Your task to perform on an android device: Add "logitech g903" to the cart on bestbuy, then select checkout. Image 0: 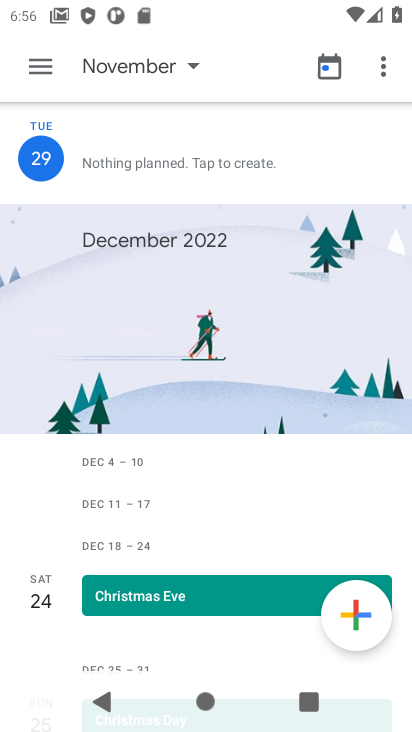
Step 0: press home button
Your task to perform on an android device: Add "logitech g903" to the cart on bestbuy, then select checkout. Image 1: 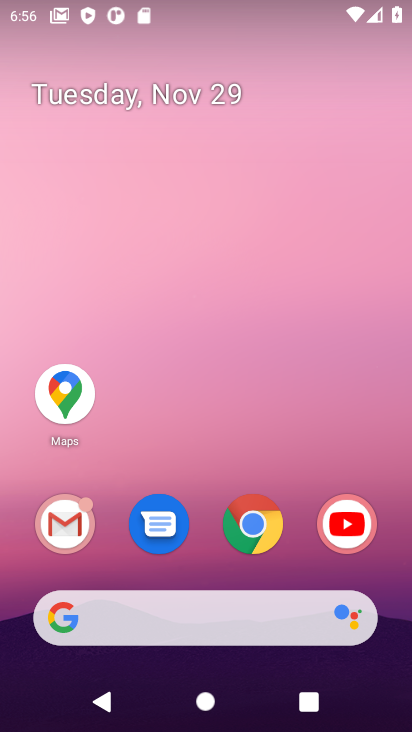
Step 1: click (254, 532)
Your task to perform on an android device: Add "logitech g903" to the cart on bestbuy, then select checkout. Image 2: 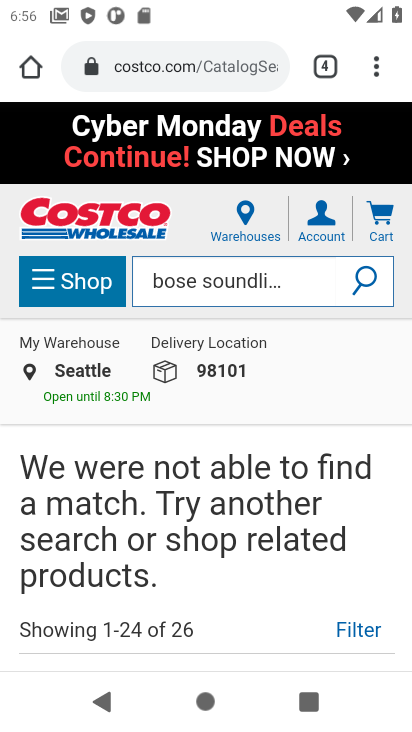
Step 2: click (184, 65)
Your task to perform on an android device: Add "logitech g903" to the cart on bestbuy, then select checkout. Image 3: 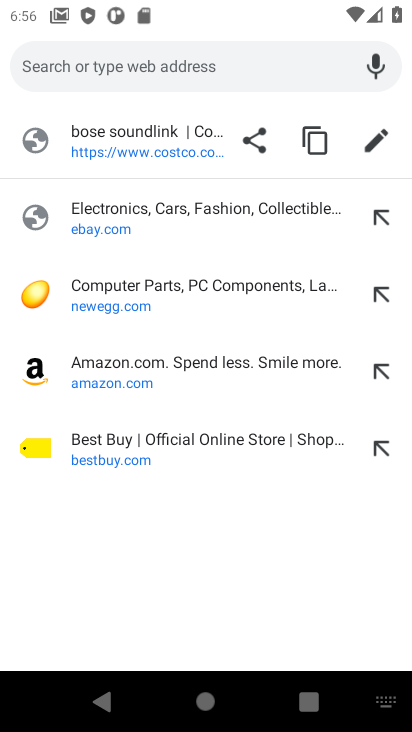
Step 3: click (97, 442)
Your task to perform on an android device: Add "logitech g903" to the cart on bestbuy, then select checkout. Image 4: 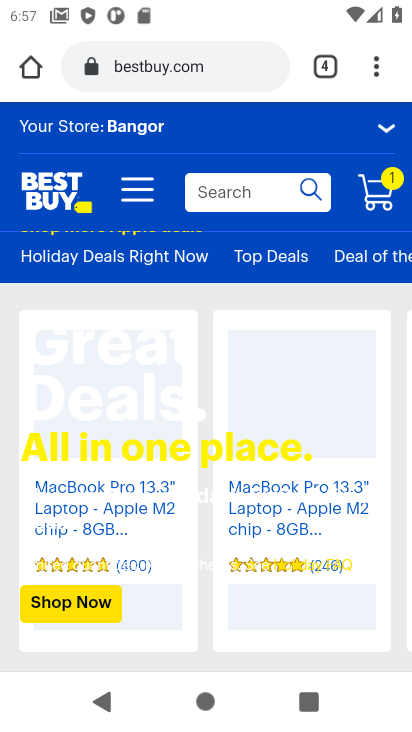
Step 4: click (226, 195)
Your task to perform on an android device: Add "logitech g903" to the cart on bestbuy, then select checkout. Image 5: 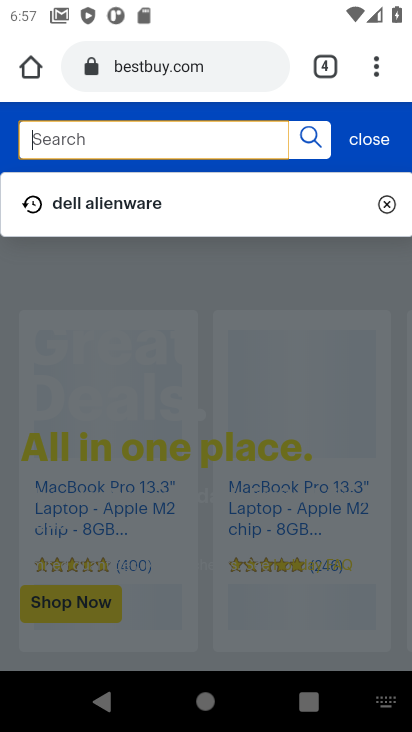
Step 5: type "logitech g903"
Your task to perform on an android device: Add "logitech g903" to the cart on bestbuy, then select checkout. Image 6: 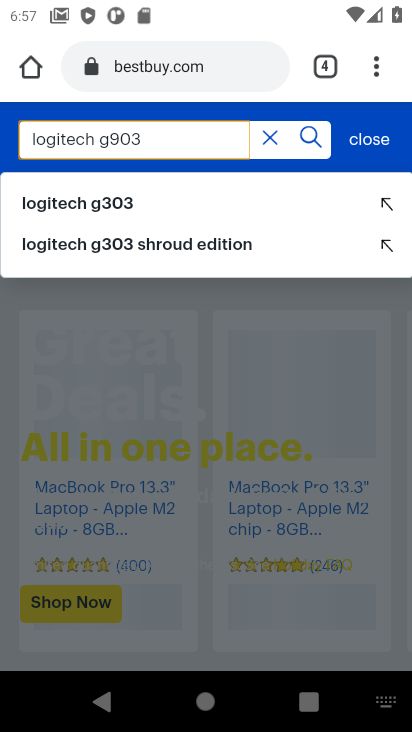
Step 6: click (295, 142)
Your task to perform on an android device: Add "logitech g903" to the cart on bestbuy, then select checkout. Image 7: 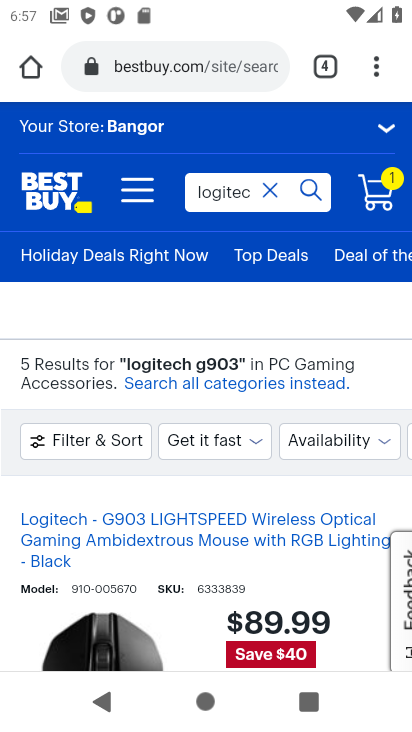
Step 7: drag from (147, 647) to (179, 307)
Your task to perform on an android device: Add "logitech g903" to the cart on bestbuy, then select checkout. Image 8: 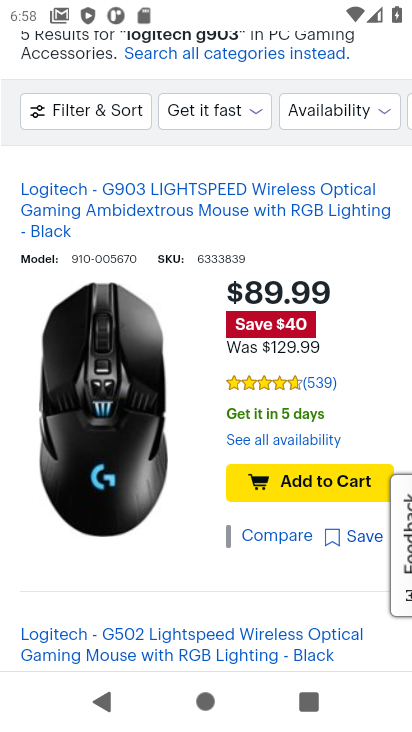
Step 8: click (278, 476)
Your task to perform on an android device: Add "logitech g903" to the cart on bestbuy, then select checkout. Image 9: 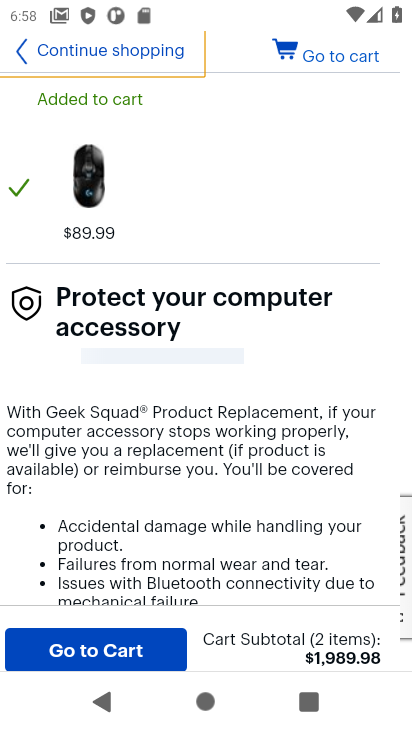
Step 9: click (354, 62)
Your task to perform on an android device: Add "logitech g903" to the cart on bestbuy, then select checkout. Image 10: 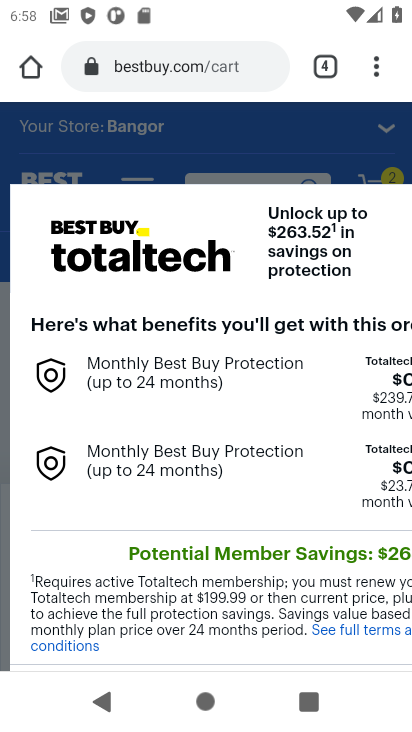
Step 10: click (296, 146)
Your task to perform on an android device: Add "logitech g903" to the cart on bestbuy, then select checkout. Image 11: 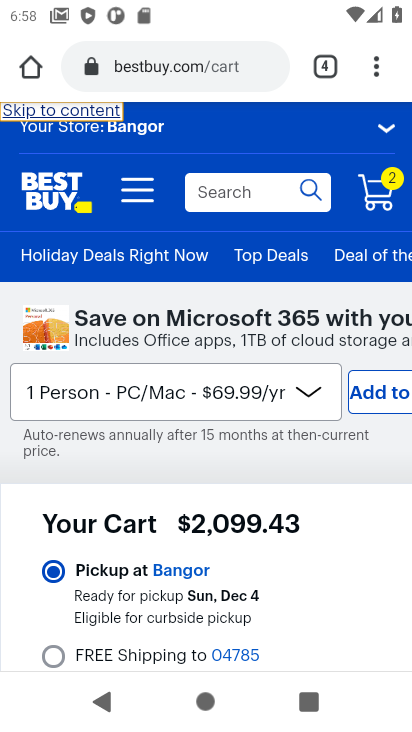
Step 11: drag from (236, 601) to (238, 383)
Your task to perform on an android device: Add "logitech g903" to the cart on bestbuy, then select checkout. Image 12: 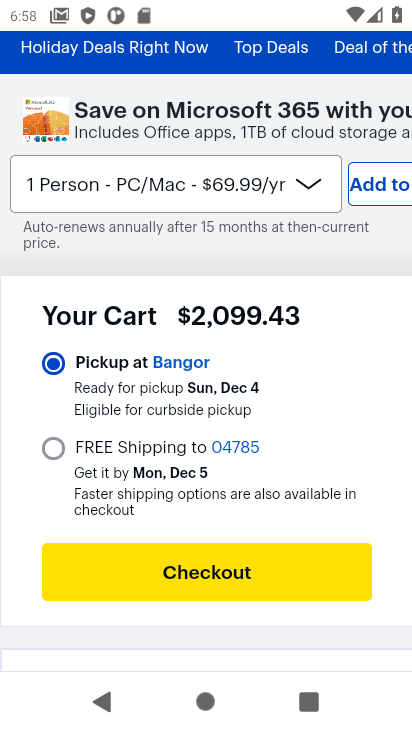
Step 12: click (198, 585)
Your task to perform on an android device: Add "logitech g903" to the cart on bestbuy, then select checkout. Image 13: 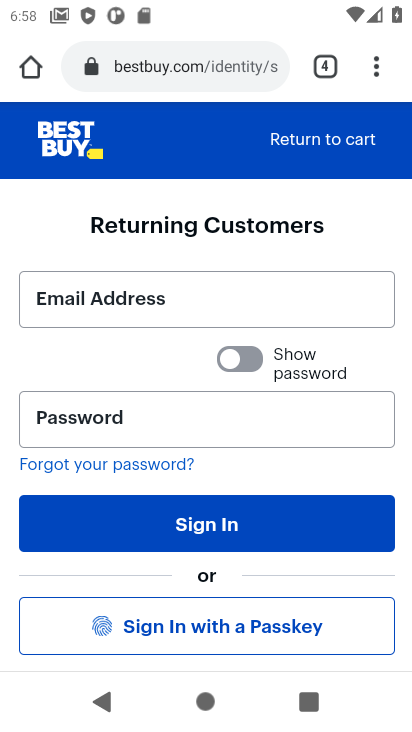
Step 13: task complete